Your task to perform on an android device: Is it going to rain this weekend? Image 0: 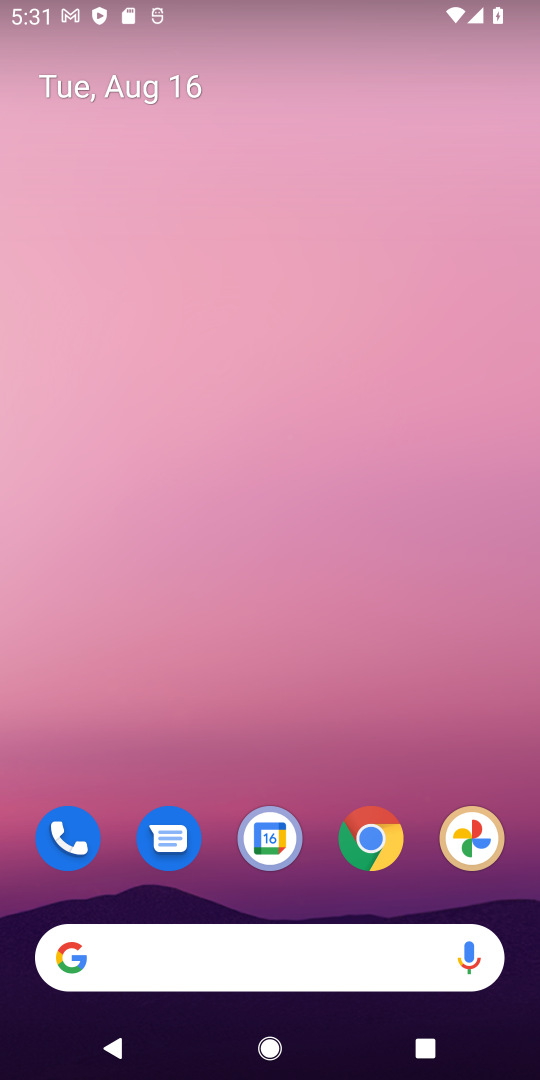
Step 0: click (274, 954)
Your task to perform on an android device: Is it going to rain this weekend? Image 1: 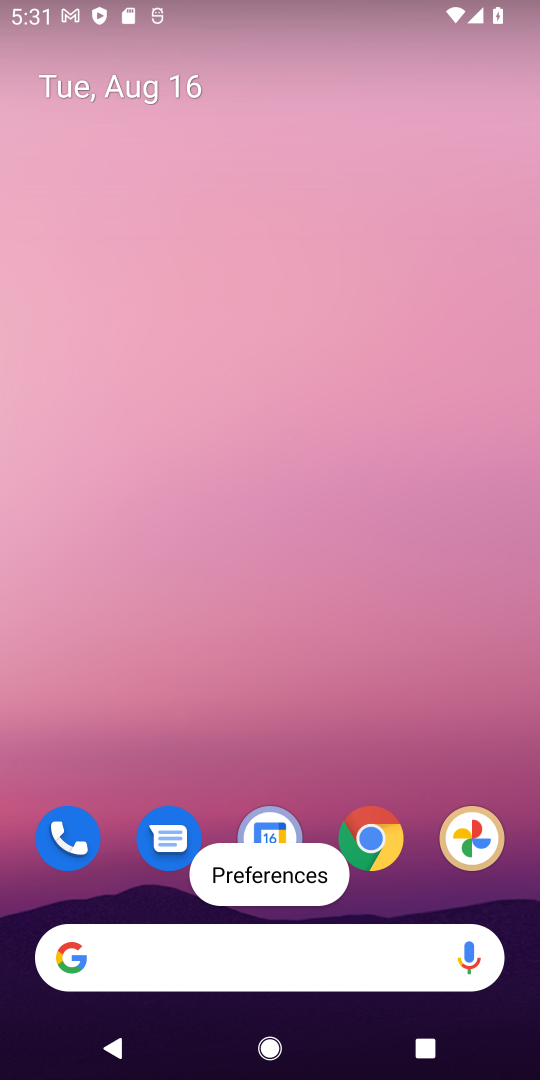
Step 1: click (274, 954)
Your task to perform on an android device: Is it going to rain this weekend? Image 2: 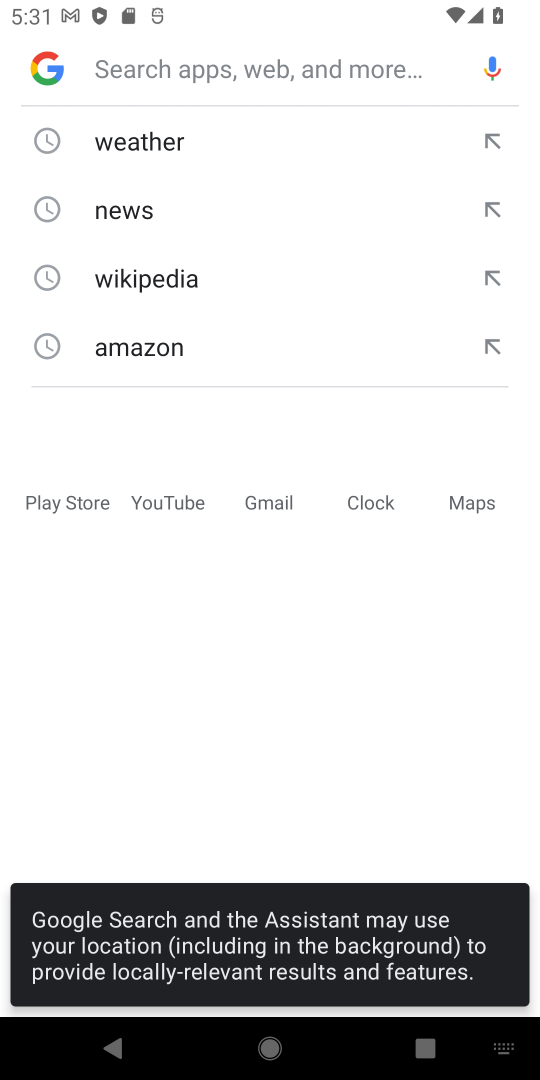
Step 2: click (162, 142)
Your task to perform on an android device: Is it going to rain this weekend? Image 3: 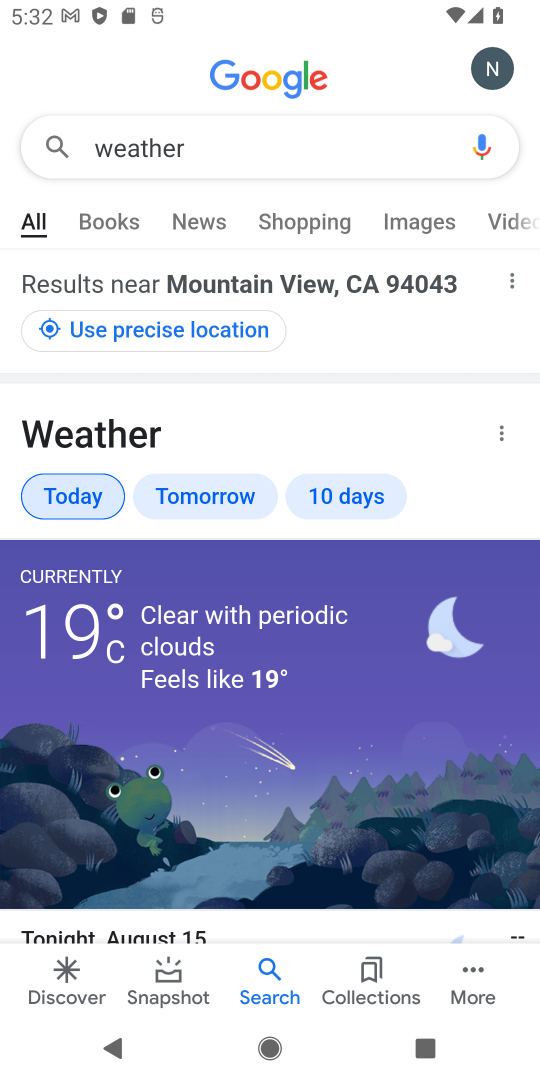
Step 3: click (353, 494)
Your task to perform on an android device: Is it going to rain this weekend? Image 4: 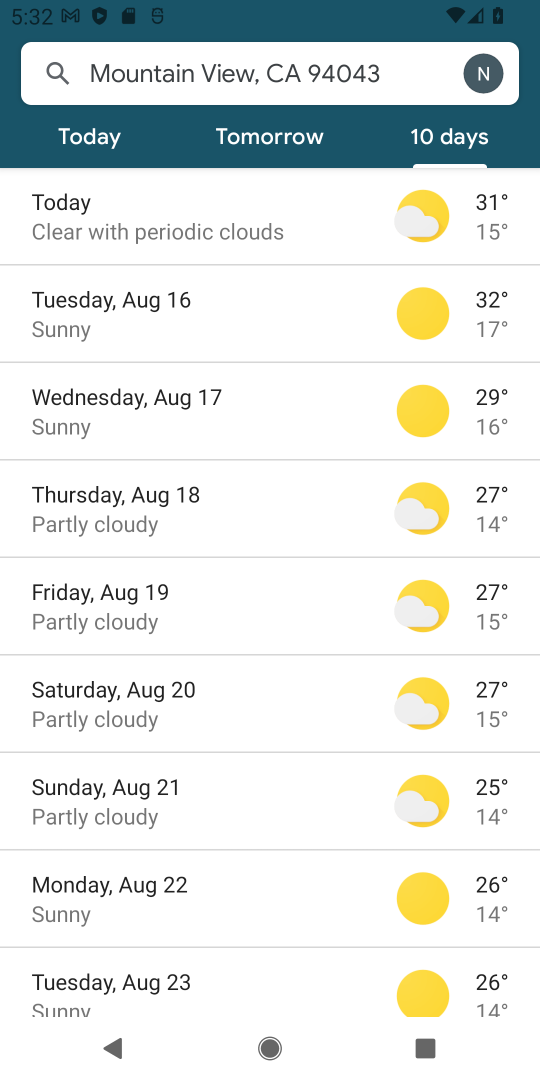
Step 4: task complete